Your task to perform on an android device: change the clock display to analog Image 0: 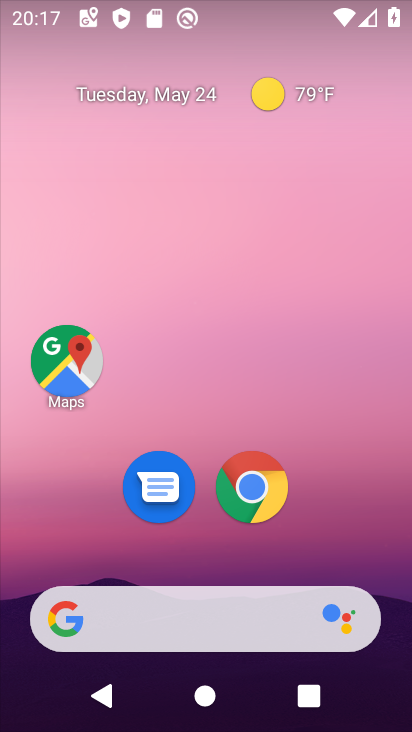
Step 0: drag from (63, 653) to (331, 149)
Your task to perform on an android device: change the clock display to analog Image 1: 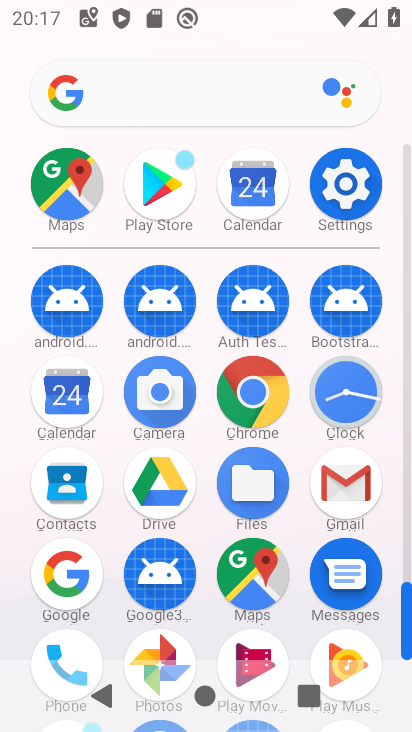
Step 1: click (357, 404)
Your task to perform on an android device: change the clock display to analog Image 2: 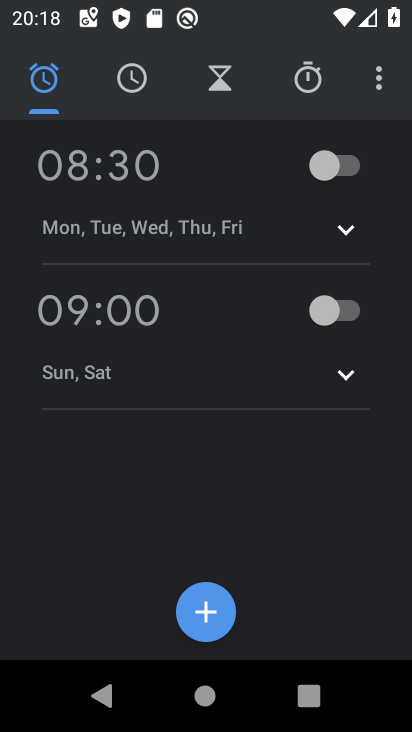
Step 2: click (371, 81)
Your task to perform on an android device: change the clock display to analog Image 3: 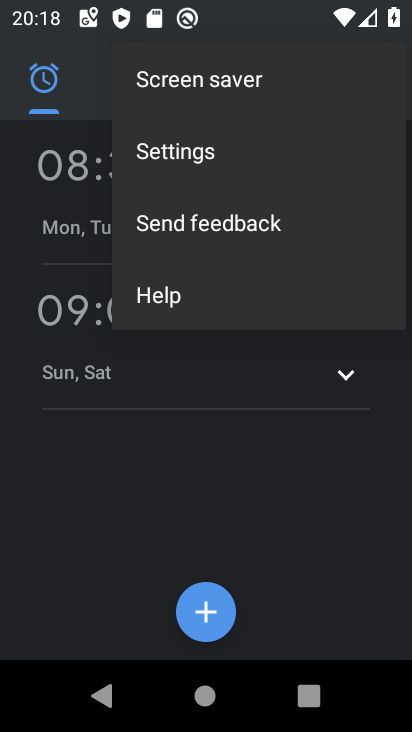
Step 3: click (187, 162)
Your task to perform on an android device: change the clock display to analog Image 4: 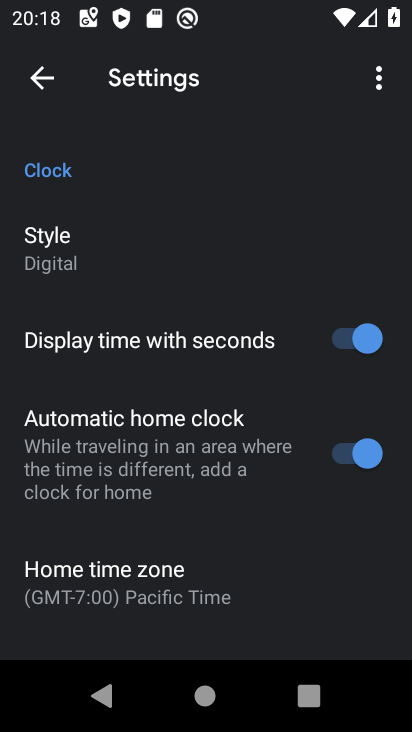
Step 4: click (126, 235)
Your task to perform on an android device: change the clock display to analog Image 5: 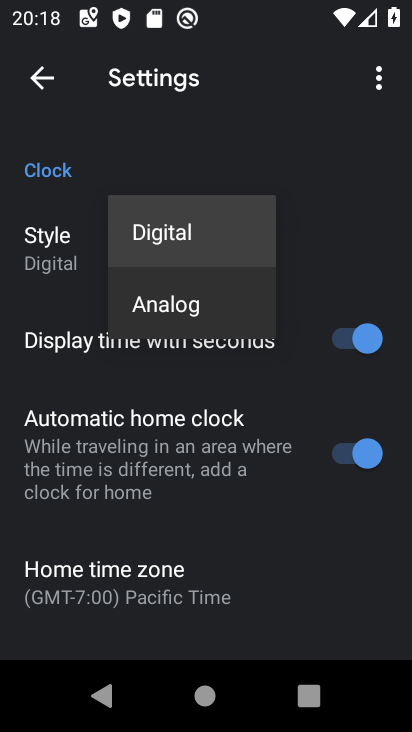
Step 5: click (134, 301)
Your task to perform on an android device: change the clock display to analog Image 6: 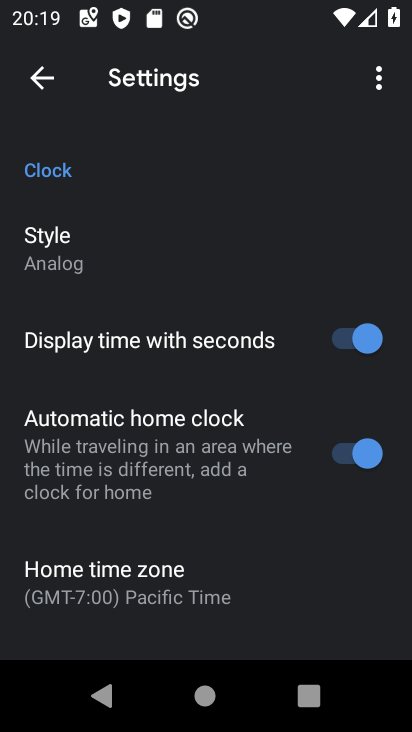
Step 6: task complete